Your task to perform on an android device: move an email to a new category in the gmail app Image 0: 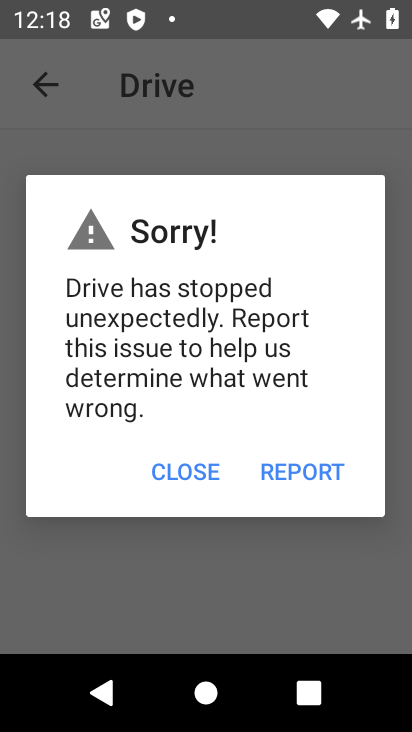
Step 0: click (357, 562)
Your task to perform on an android device: move an email to a new category in the gmail app Image 1: 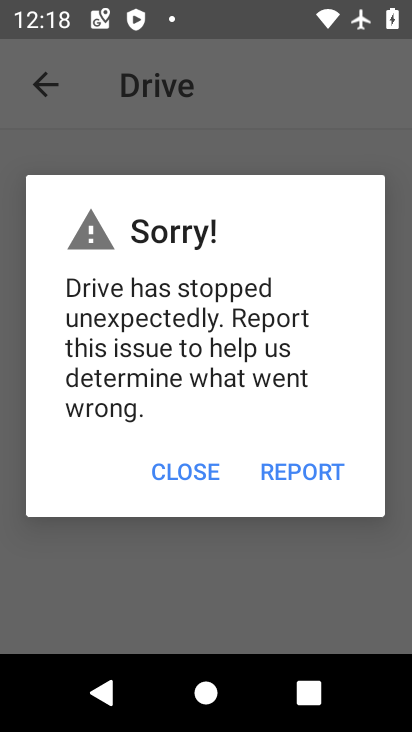
Step 1: press home button
Your task to perform on an android device: move an email to a new category in the gmail app Image 2: 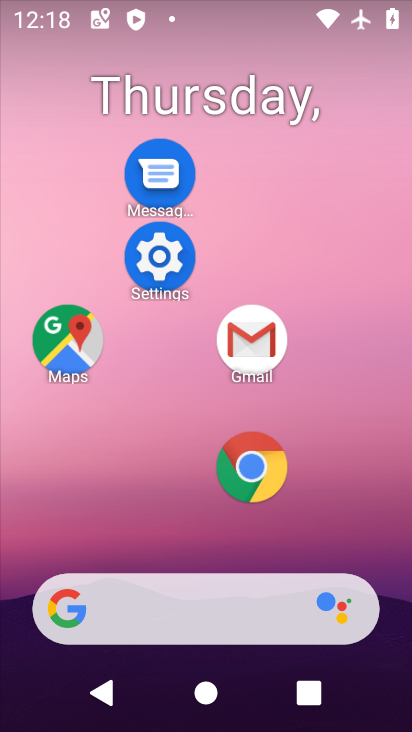
Step 2: click (187, 525)
Your task to perform on an android device: move an email to a new category in the gmail app Image 3: 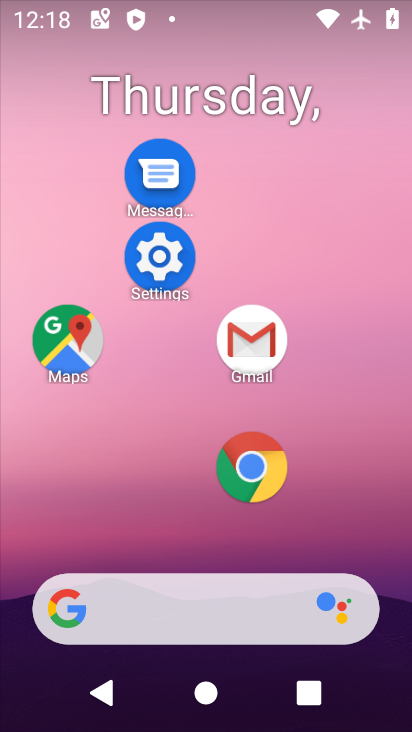
Step 3: click (257, 330)
Your task to perform on an android device: move an email to a new category in the gmail app Image 4: 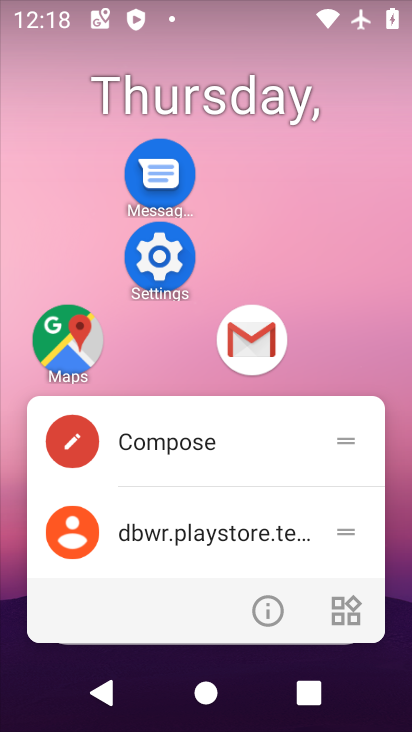
Step 4: click (267, 593)
Your task to perform on an android device: move an email to a new category in the gmail app Image 5: 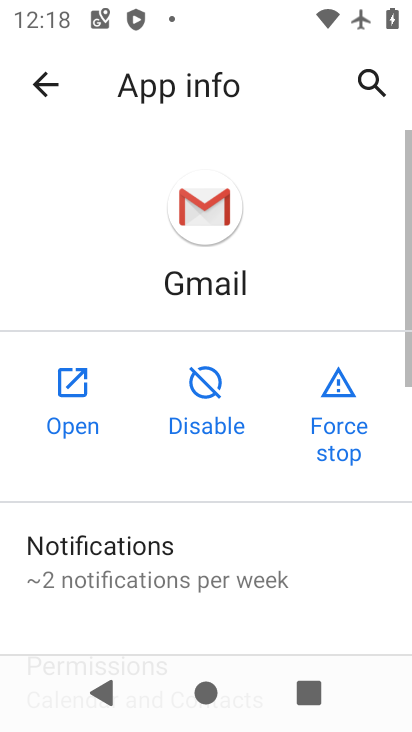
Step 5: click (86, 378)
Your task to perform on an android device: move an email to a new category in the gmail app Image 6: 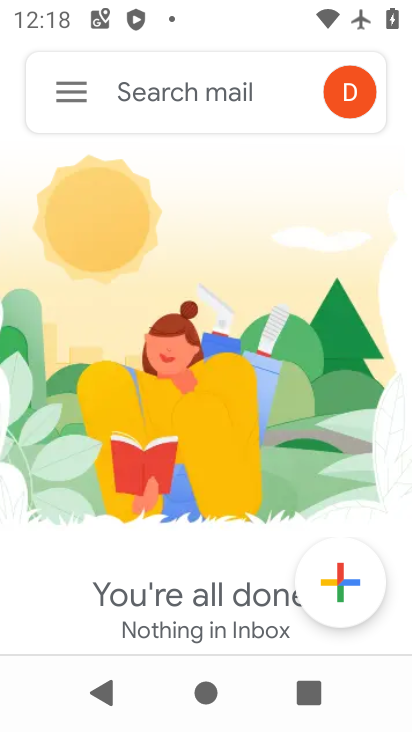
Step 6: click (47, 88)
Your task to perform on an android device: move an email to a new category in the gmail app Image 7: 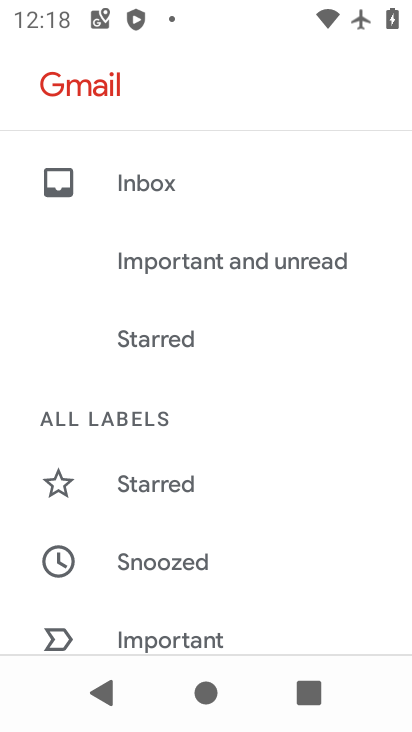
Step 7: drag from (217, 515) to (215, 107)
Your task to perform on an android device: move an email to a new category in the gmail app Image 8: 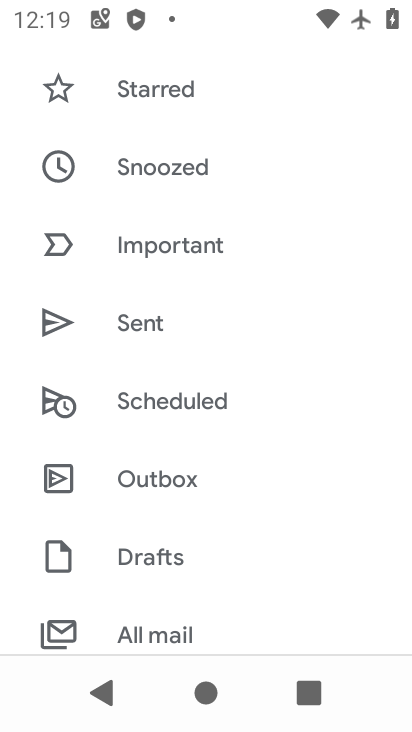
Step 8: click (312, 103)
Your task to perform on an android device: move an email to a new category in the gmail app Image 9: 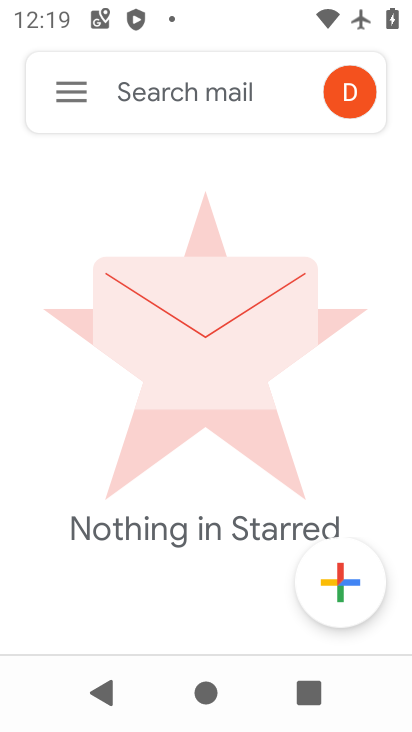
Step 9: task complete